Your task to perform on an android device: open a new tab in the chrome app Image 0: 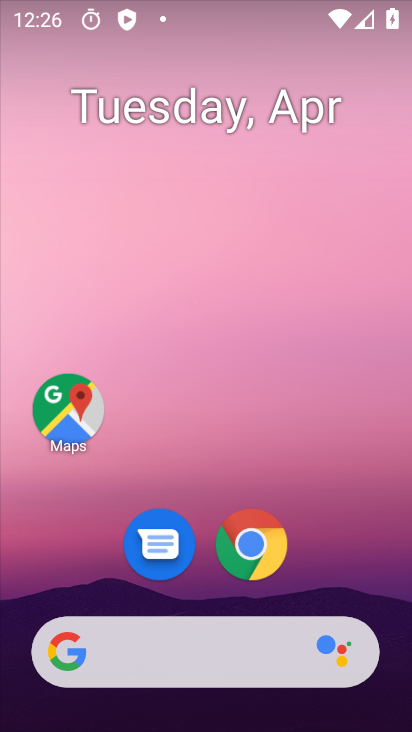
Step 0: click (252, 553)
Your task to perform on an android device: open a new tab in the chrome app Image 1: 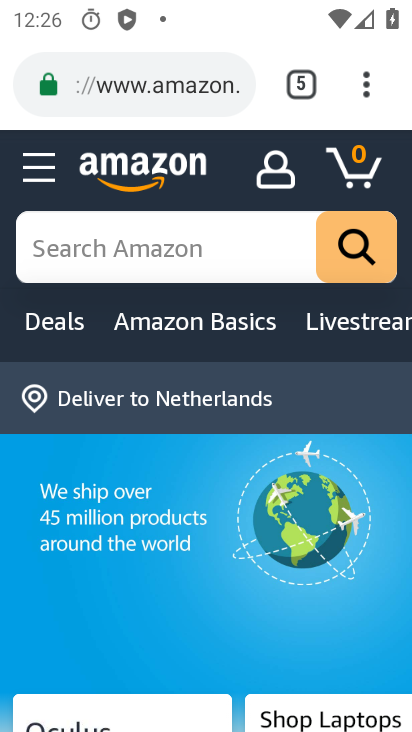
Step 1: click (367, 81)
Your task to perform on an android device: open a new tab in the chrome app Image 2: 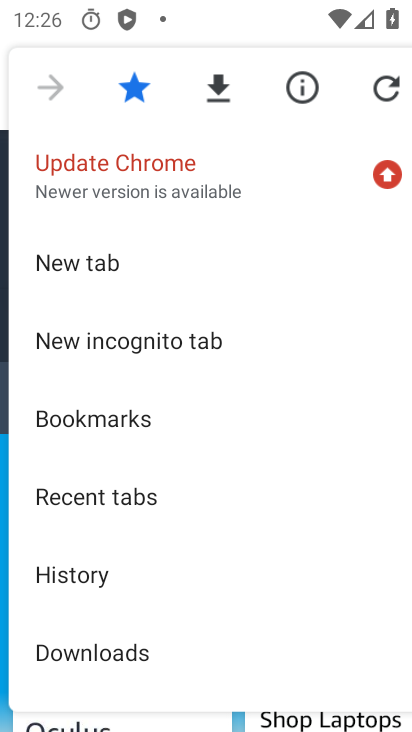
Step 2: click (94, 263)
Your task to perform on an android device: open a new tab in the chrome app Image 3: 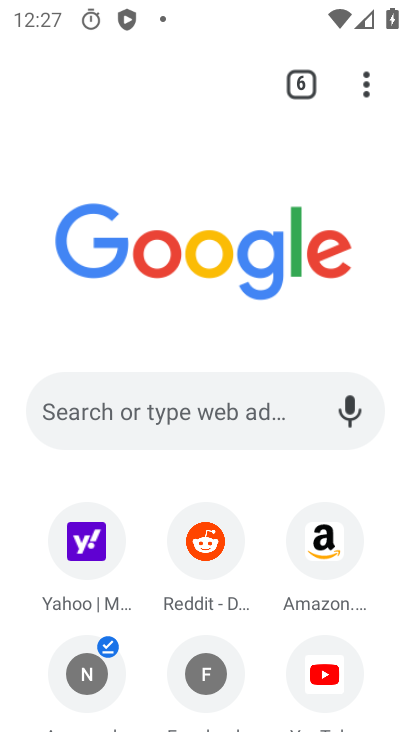
Step 3: task complete